Your task to perform on an android device: open app "Google Pay: Save, Pay, Manage" Image 0: 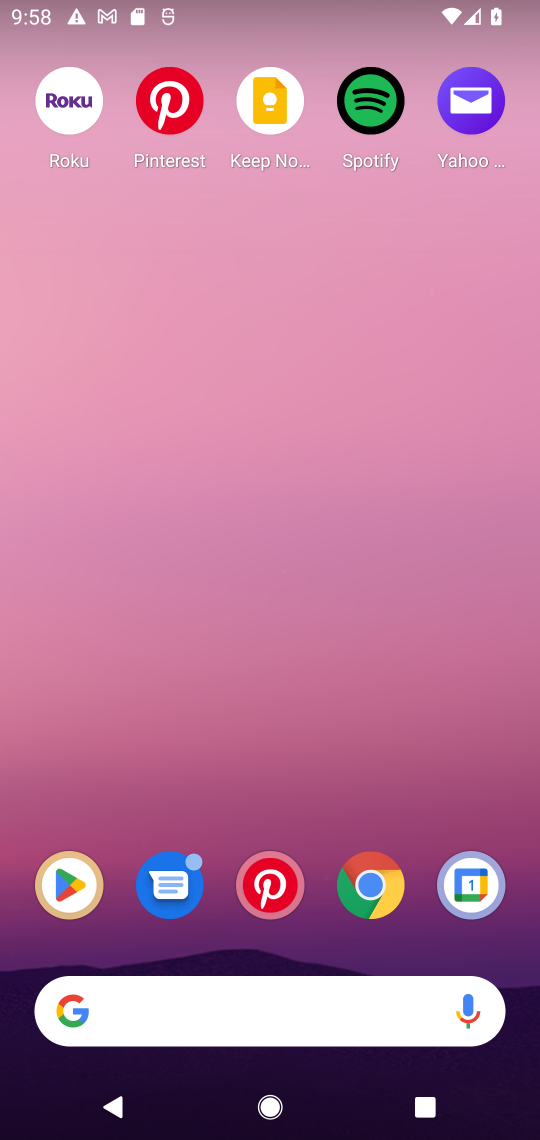
Step 0: drag from (326, 964) to (334, 194)
Your task to perform on an android device: open app "Google Pay: Save, Pay, Manage" Image 1: 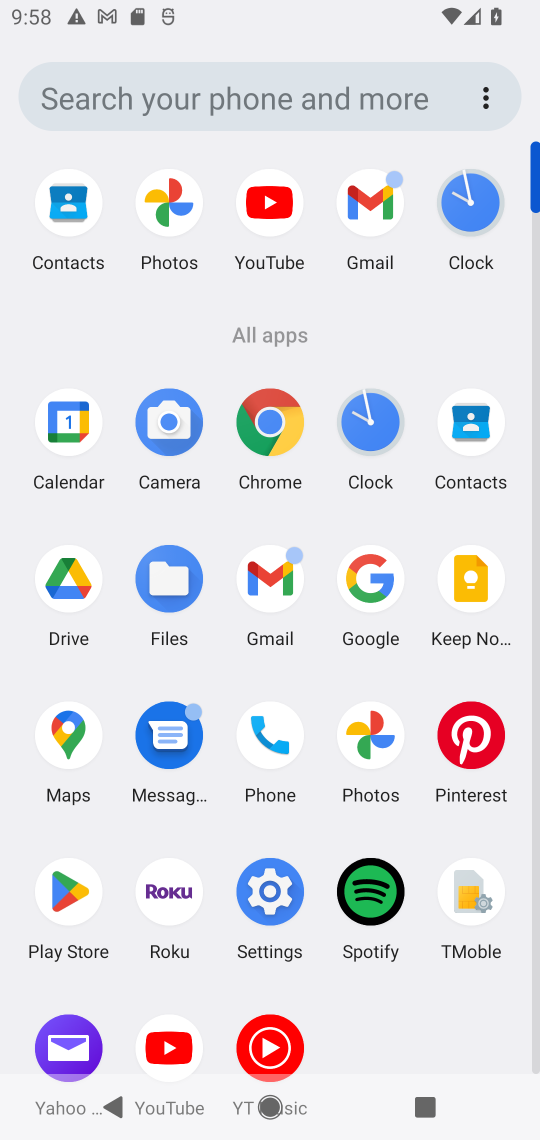
Step 1: task complete